Your task to perform on an android device: turn vacation reply on in the gmail app Image 0: 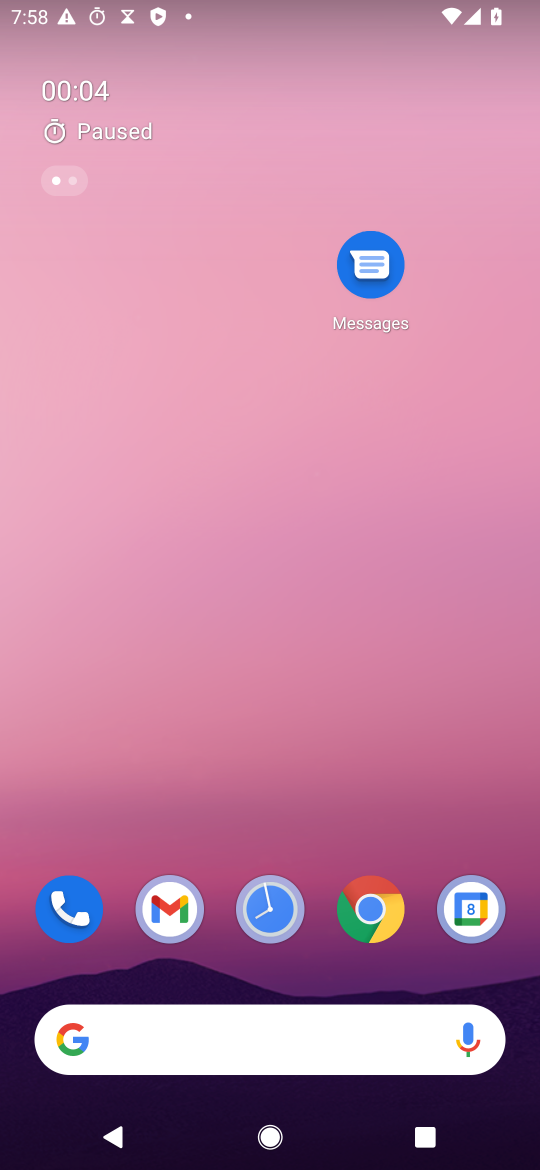
Step 0: press home button
Your task to perform on an android device: turn vacation reply on in the gmail app Image 1: 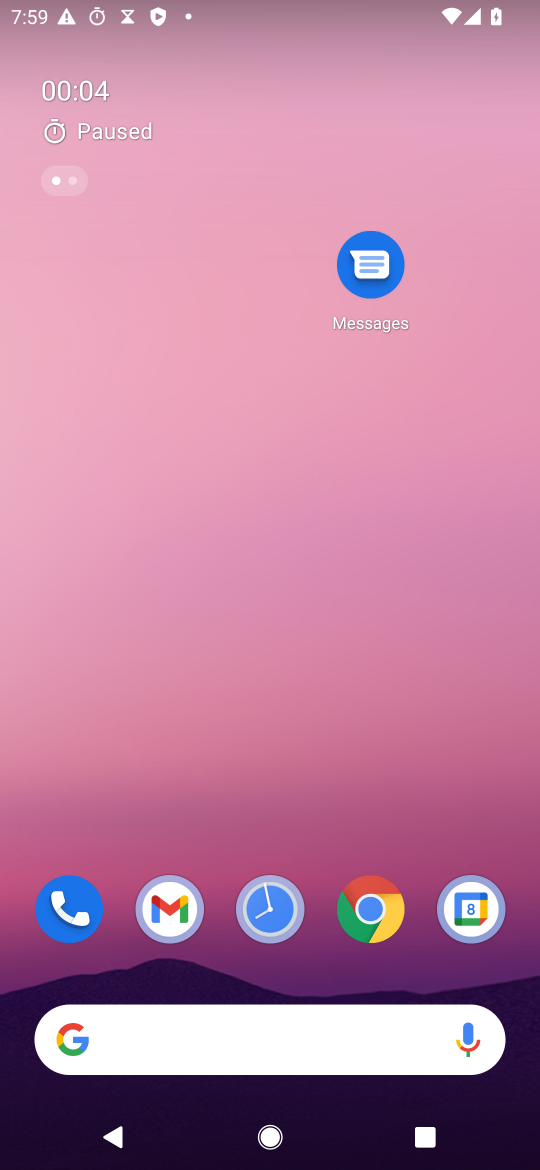
Step 1: click (172, 908)
Your task to perform on an android device: turn vacation reply on in the gmail app Image 2: 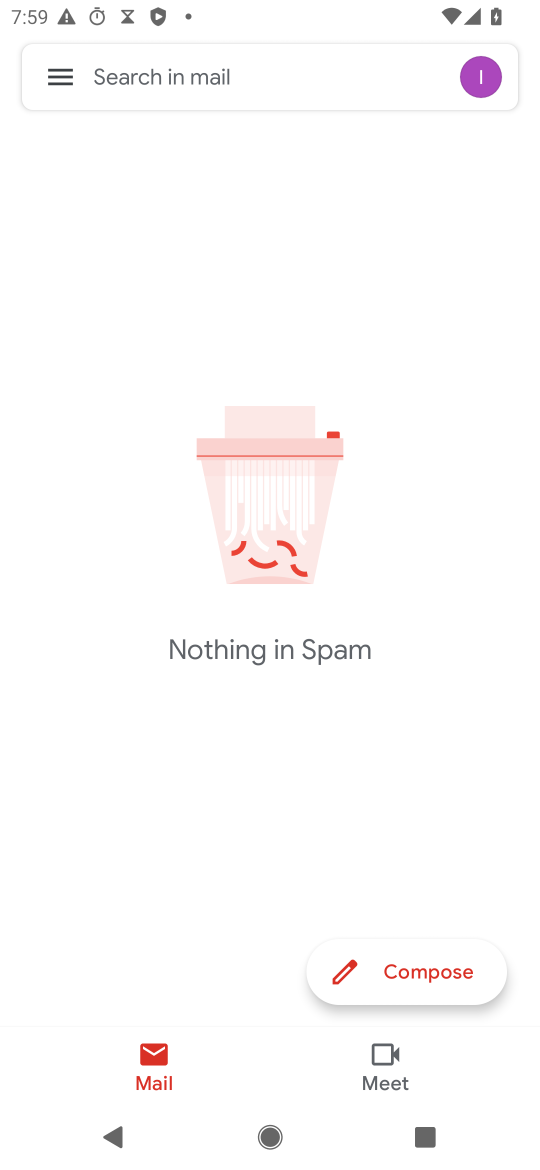
Step 2: click (60, 64)
Your task to perform on an android device: turn vacation reply on in the gmail app Image 3: 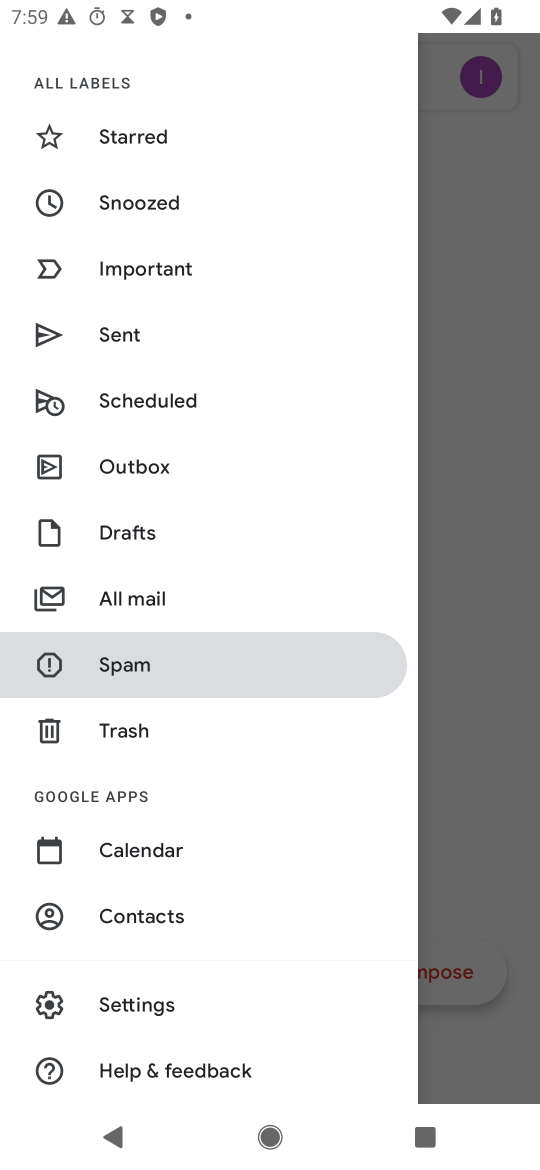
Step 3: drag from (245, 990) to (302, 734)
Your task to perform on an android device: turn vacation reply on in the gmail app Image 4: 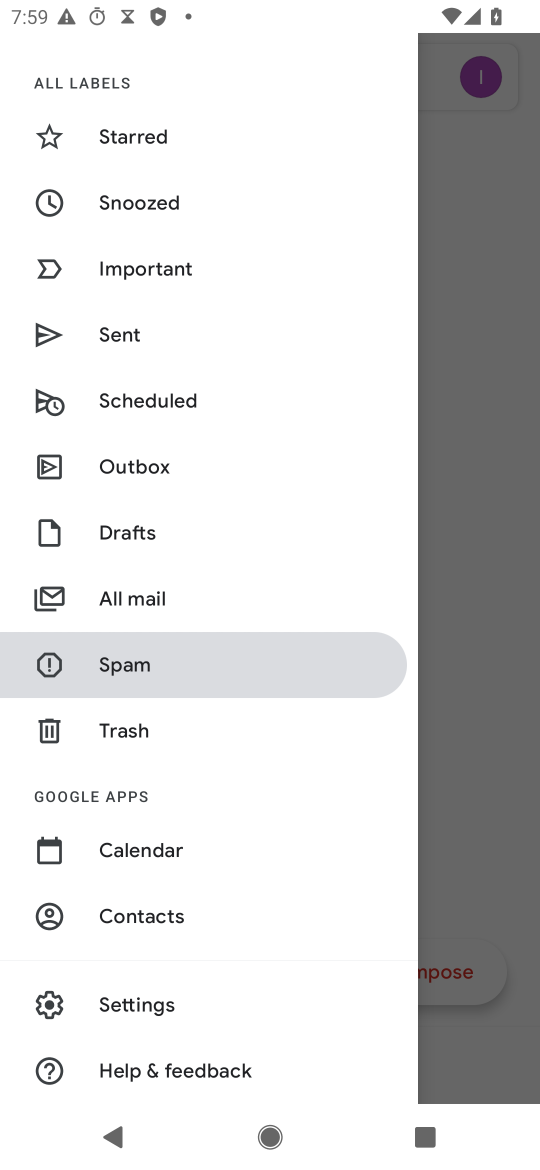
Step 4: click (171, 1005)
Your task to perform on an android device: turn vacation reply on in the gmail app Image 5: 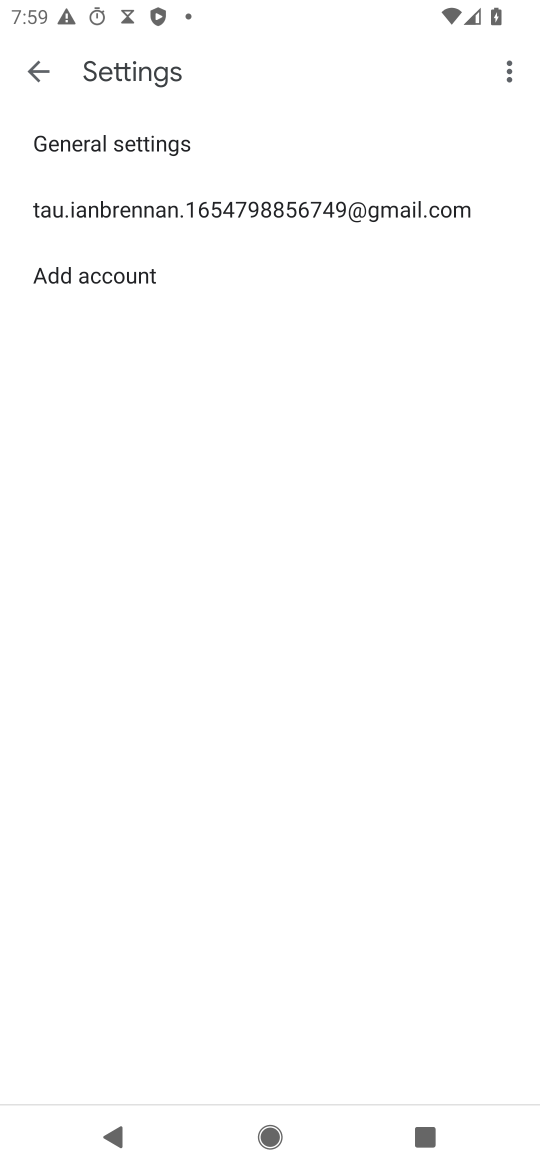
Step 5: click (359, 202)
Your task to perform on an android device: turn vacation reply on in the gmail app Image 6: 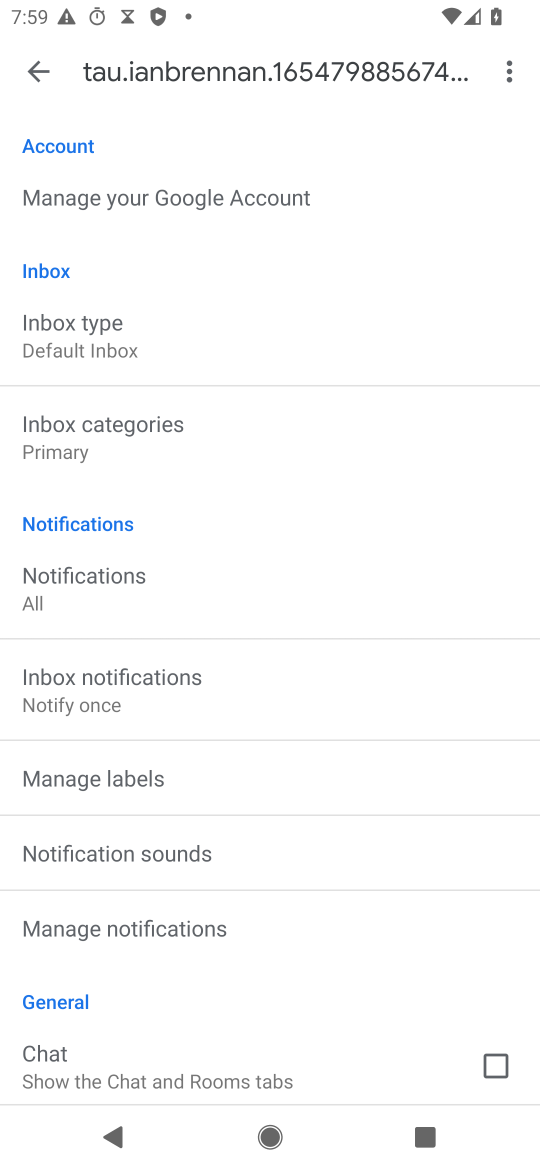
Step 6: drag from (222, 1004) to (417, 284)
Your task to perform on an android device: turn vacation reply on in the gmail app Image 7: 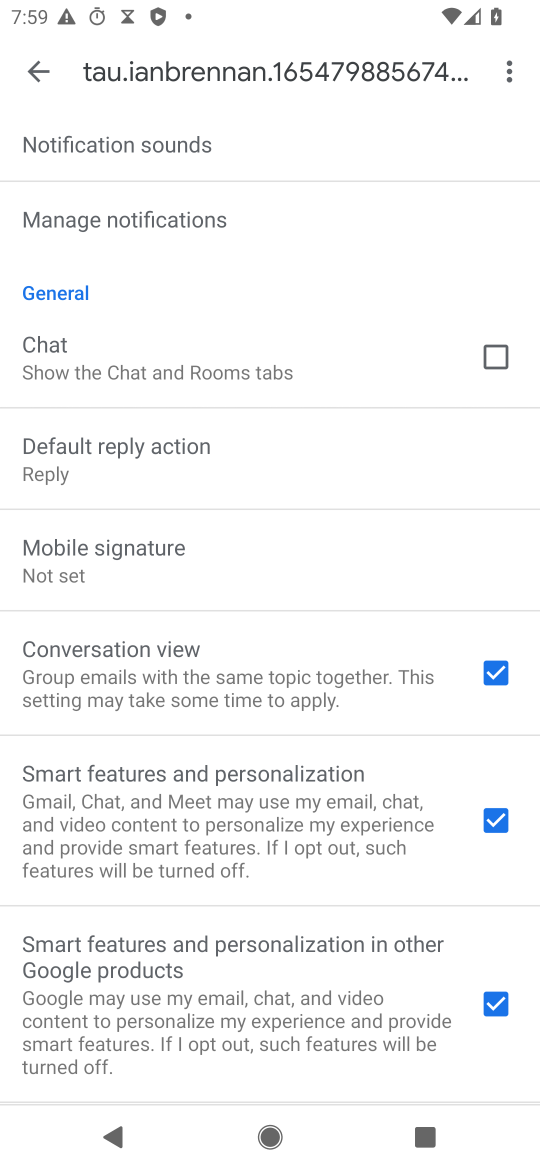
Step 7: drag from (270, 969) to (375, 360)
Your task to perform on an android device: turn vacation reply on in the gmail app Image 8: 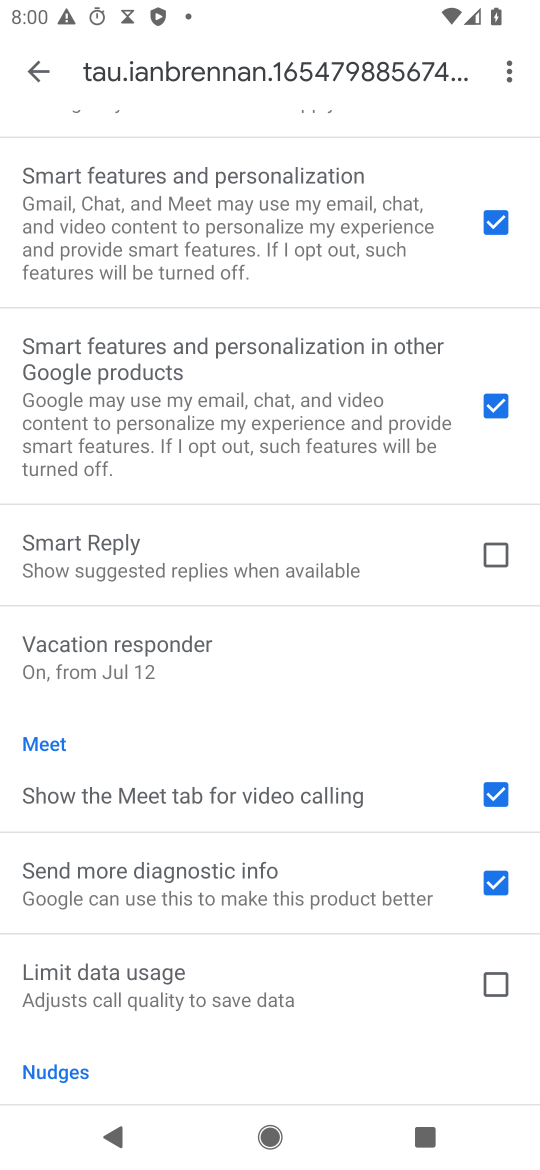
Step 8: drag from (235, 1017) to (335, 579)
Your task to perform on an android device: turn vacation reply on in the gmail app Image 9: 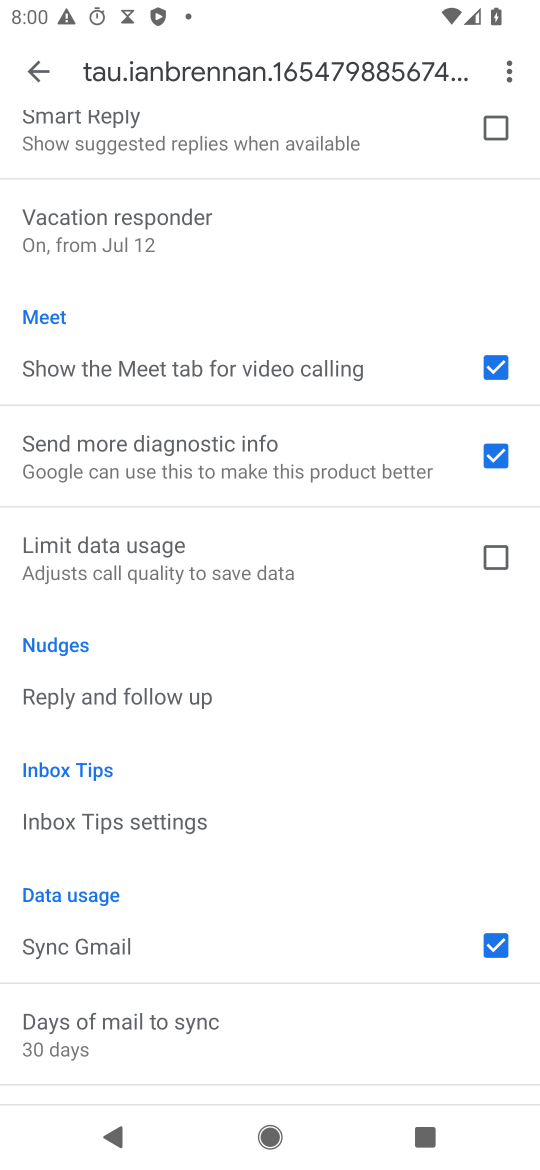
Step 9: click (129, 219)
Your task to perform on an android device: turn vacation reply on in the gmail app Image 10: 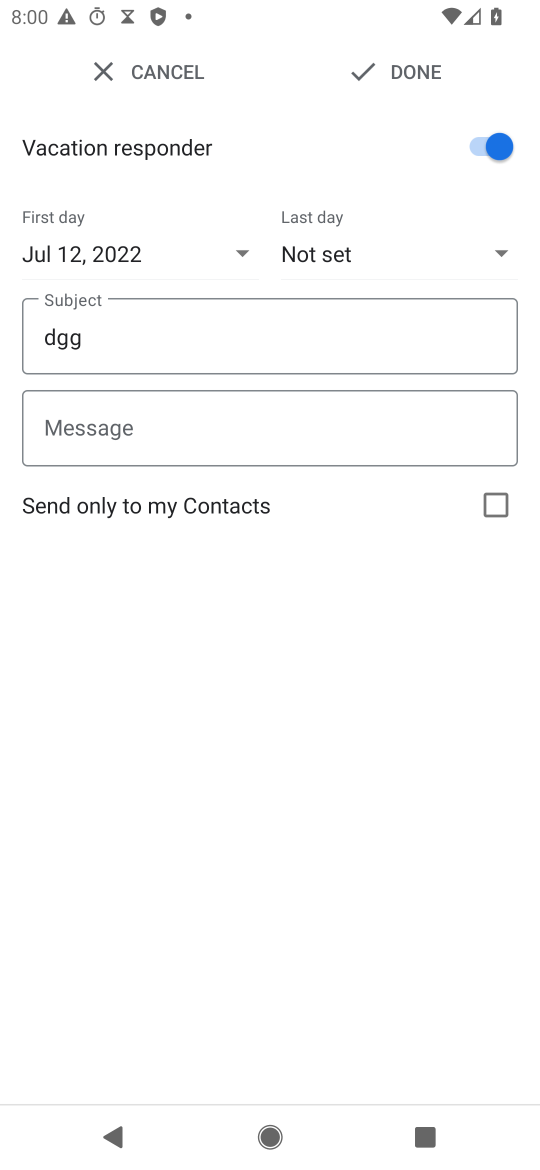
Step 10: task complete